Your task to perform on an android device: Go to Maps Image 0: 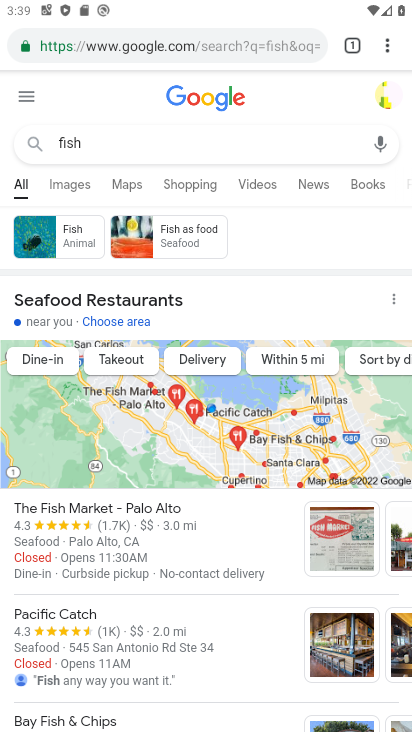
Step 0: press home button
Your task to perform on an android device: Go to Maps Image 1: 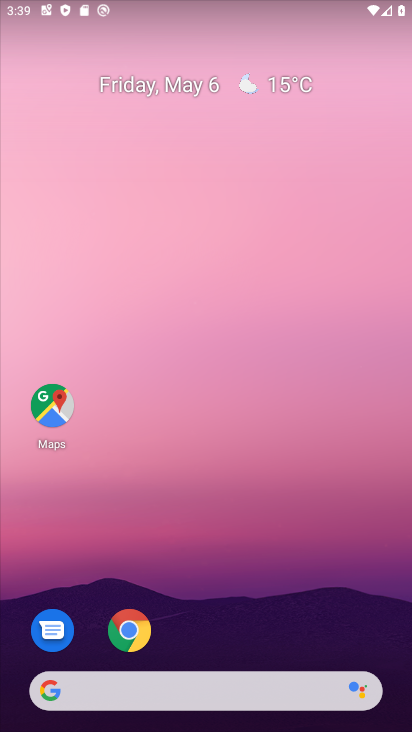
Step 1: click (48, 388)
Your task to perform on an android device: Go to Maps Image 2: 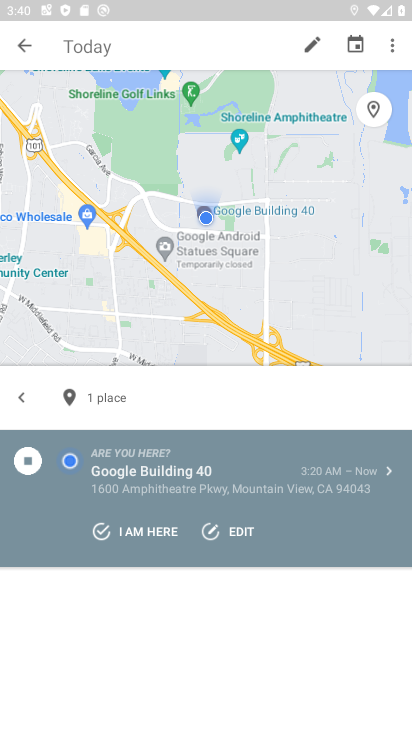
Step 2: task complete